Your task to perform on an android device: turn off smart reply in the gmail app Image 0: 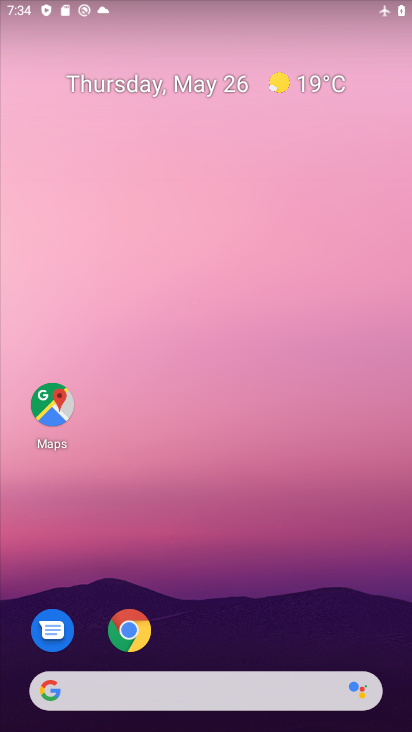
Step 0: drag from (237, 584) to (202, 219)
Your task to perform on an android device: turn off smart reply in the gmail app Image 1: 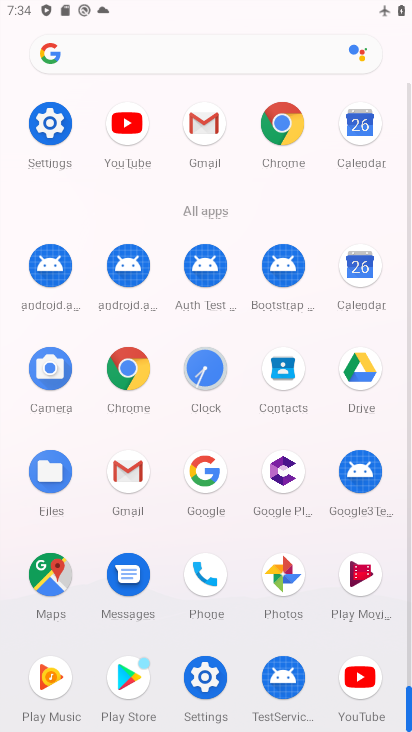
Step 1: click (206, 123)
Your task to perform on an android device: turn off smart reply in the gmail app Image 2: 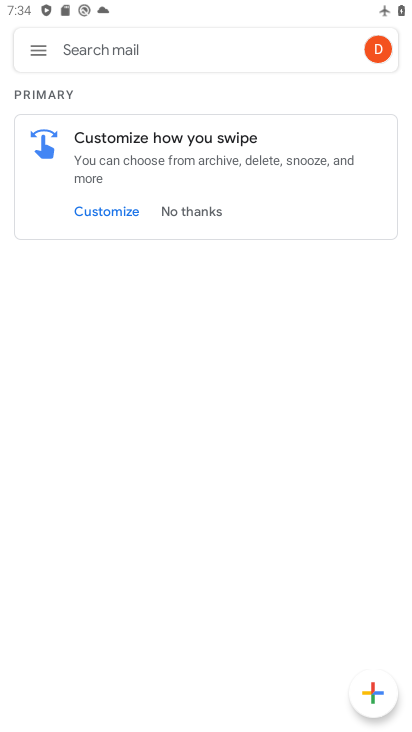
Step 2: click (38, 53)
Your task to perform on an android device: turn off smart reply in the gmail app Image 3: 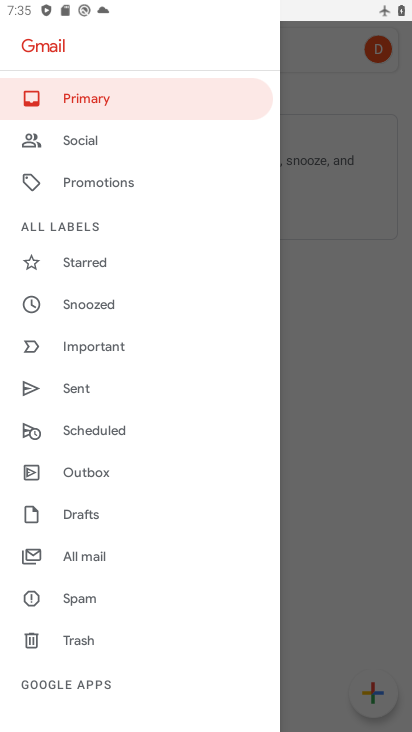
Step 3: drag from (93, 569) to (119, 492)
Your task to perform on an android device: turn off smart reply in the gmail app Image 4: 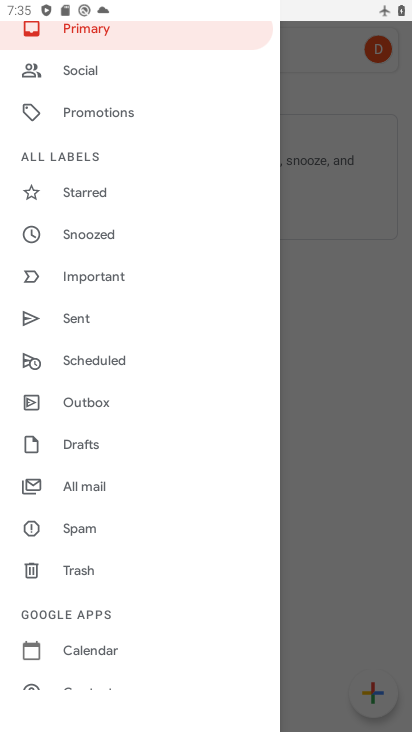
Step 4: drag from (79, 582) to (141, 502)
Your task to perform on an android device: turn off smart reply in the gmail app Image 5: 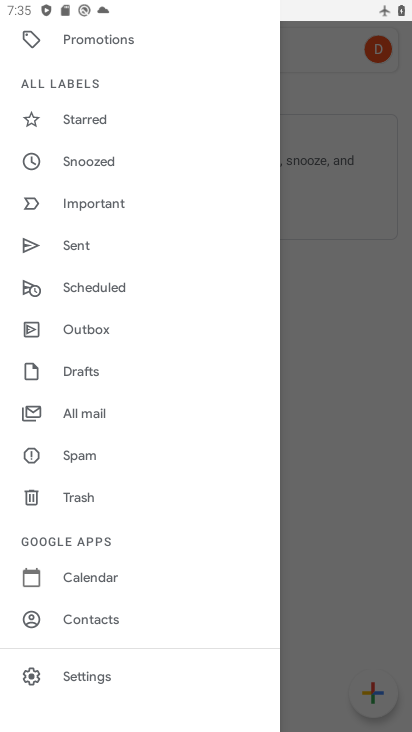
Step 5: drag from (71, 602) to (115, 527)
Your task to perform on an android device: turn off smart reply in the gmail app Image 6: 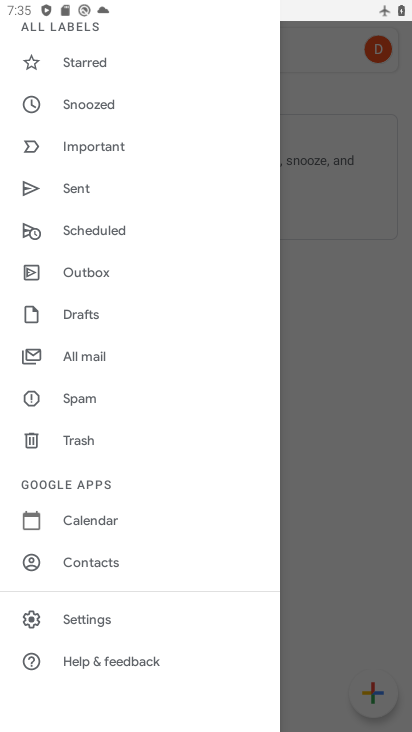
Step 6: click (107, 620)
Your task to perform on an android device: turn off smart reply in the gmail app Image 7: 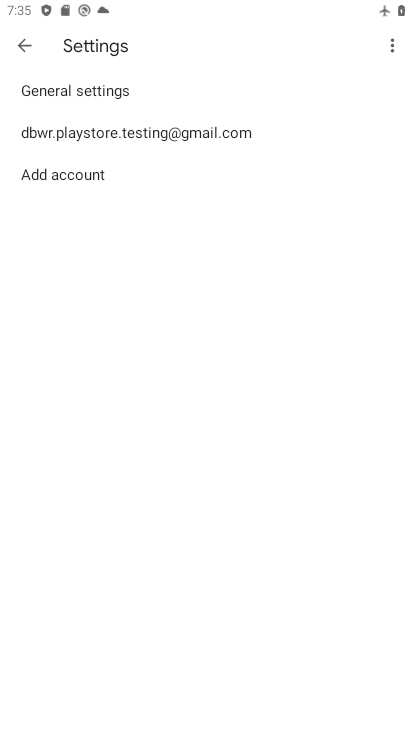
Step 7: click (157, 136)
Your task to perform on an android device: turn off smart reply in the gmail app Image 8: 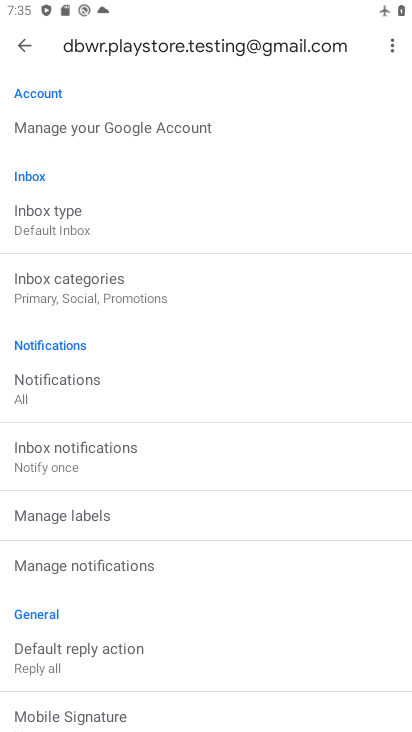
Step 8: drag from (83, 586) to (118, 495)
Your task to perform on an android device: turn off smart reply in the gmail app Image 9: 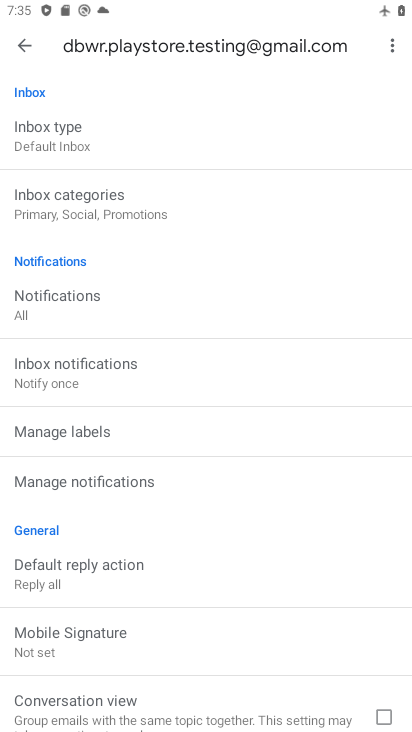
Step 9: drag from (92, 538) to (141, 455)
Your task to perform on an android device: turn off smart reply in the gmail app Image 10: 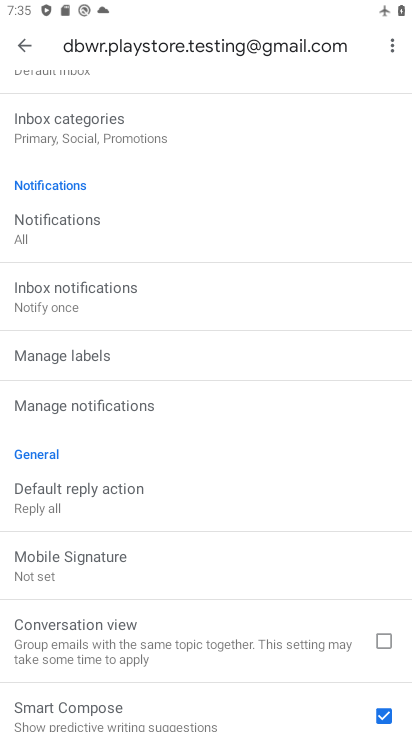
Step 10: drag from (88, 580) to (119, 492)
Your task to perform on an android device: turn off smart reply in the gmail app Image 11: 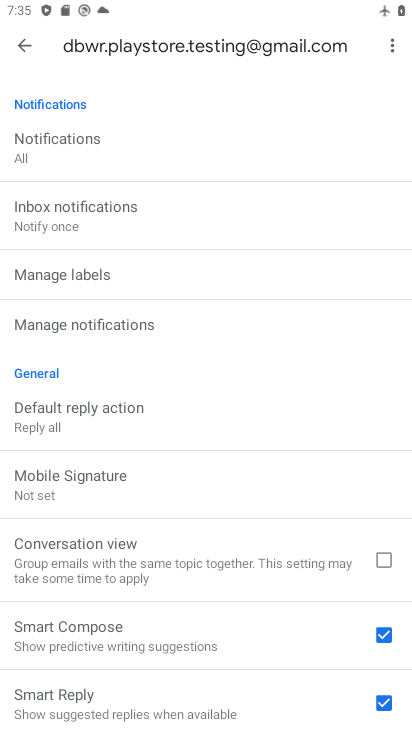
Step 11: drag from (80, 598) to (132, 507)
Your task to perform on an android device: turn off smart reply in the gmail app Image 12: 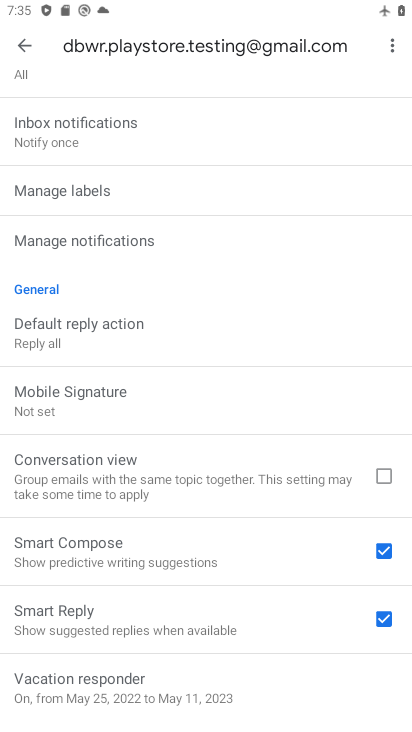
Step 12: click (383, 622)
Your task to perform on an android device: turn off smart reply in the gmail app Image 13: 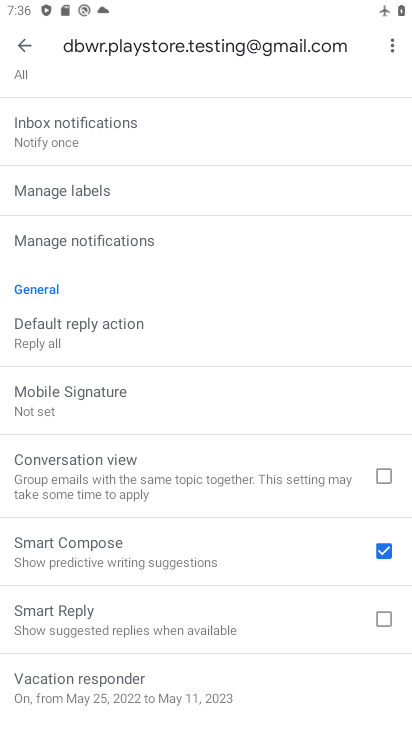
Step 13: task complete